Your task to perform on an android device: remove spam from my inbox in the gmail app Image 0: 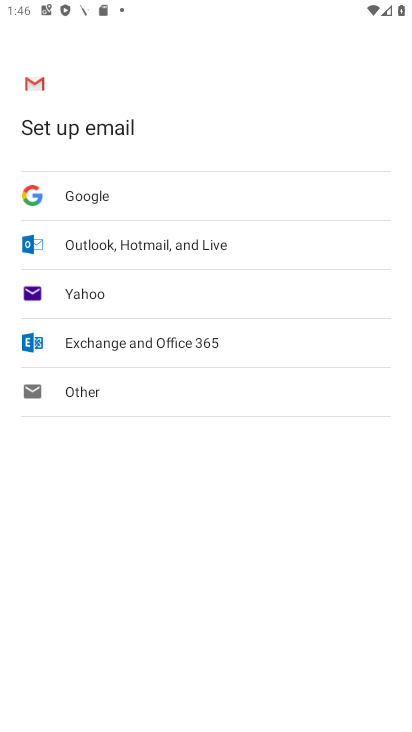
Step 0: press home button
Your task to perform on an android device: remove spam from my inbox in the gmail app Image 1: 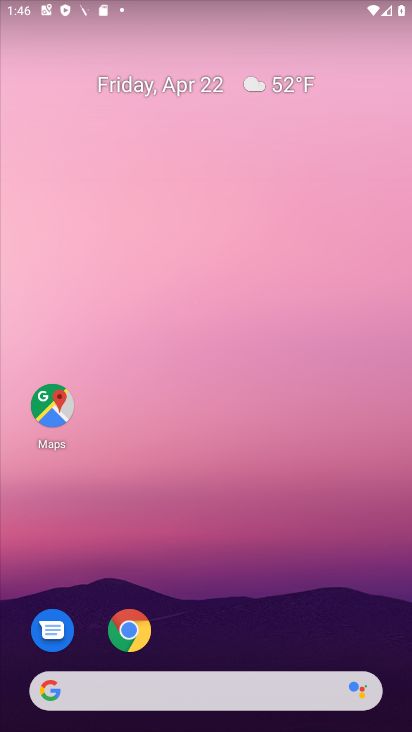
Step 1: drag from (330, 385) to (296, 139)
Your task to perform on an android device: remove spam from my inbox in the gmail app Image 2: 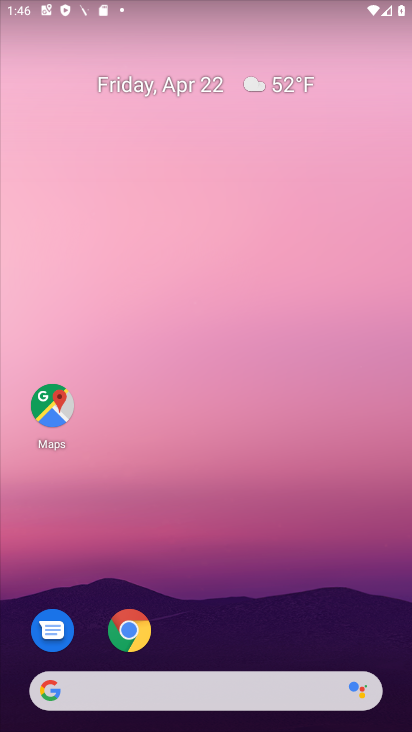
Step 2: drag from (383, 327) to (380, 168)
Your task to perform on an android device: remove spam from my inbox in the gmail app Image 3: 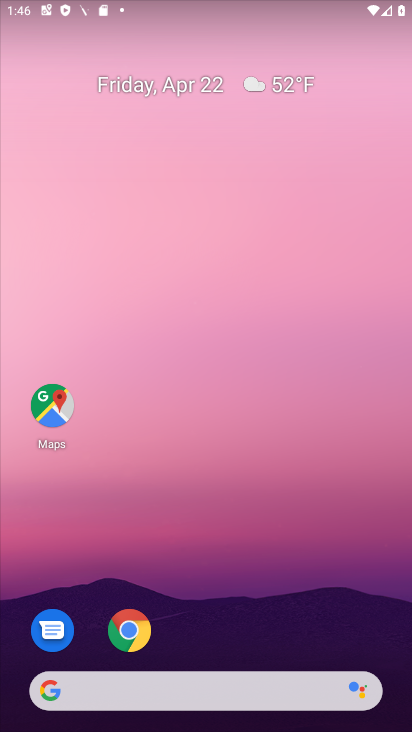
Step 3: drag from (340, 61) to (329, 1)
Your task to perform on an android device: remove spam from my inbox in the gmail app Image 4: 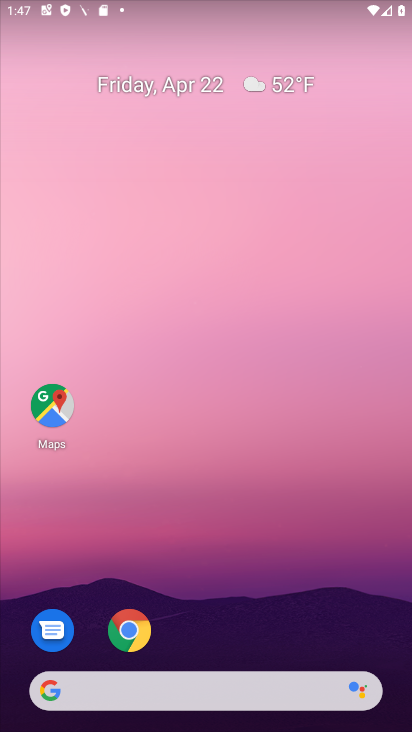
Step 4: drag from (410, 334) to (391, 167)
Your task to perform on an android device: remove spam from my inbox in the gmail app Image 5: 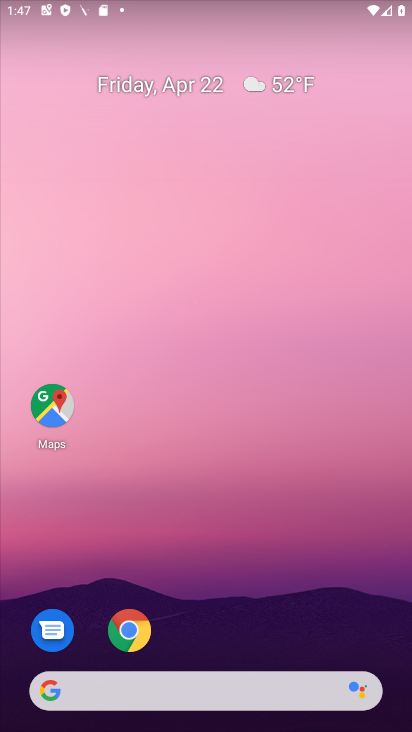
Step 5: drag from (363, 567) to (314, 273)
Your task to perform on an android device: remove spam from my inbox in the gmail app Image 6: 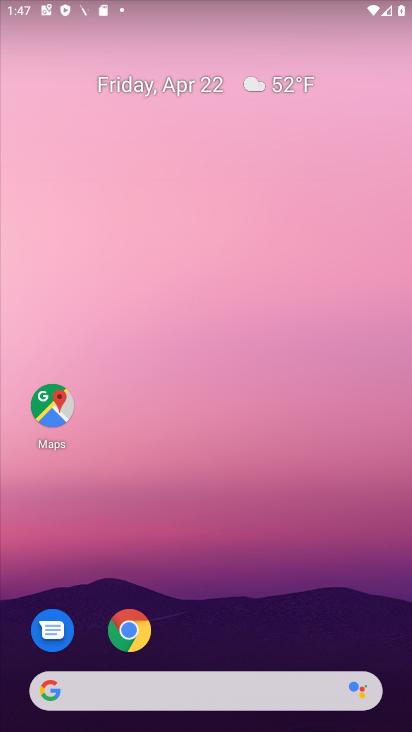
Step 6: click (288, 140)
Your task to perform on an android device: remove spam from my inbox in the gmail app Image 7: 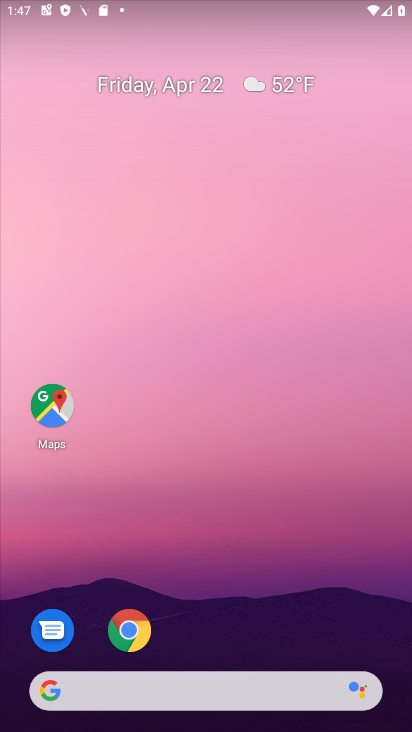
Step 7: click (317, 193)
Your task to perform on an android device: remove spam from my inbox in the gmail app Image 8: 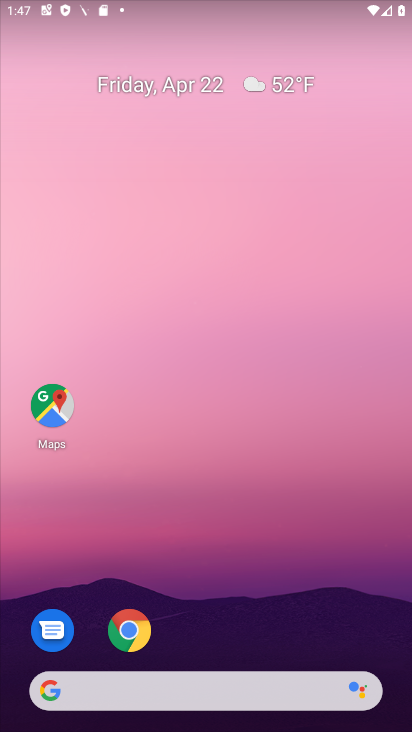
Step 8: drag from (390, 643) to (362, 9)
Your task to perform on an android device: remove spam from my inbox in the gmail app Image 9: 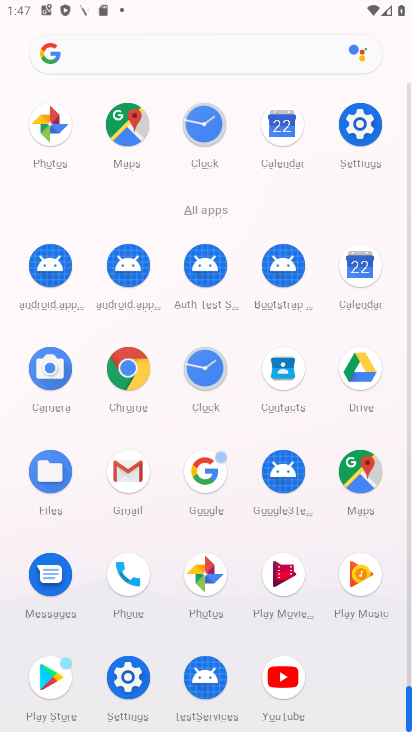
Step 9: click (119, 477)
Your task to perform on an android device: remove spam from my inbox in the gmail app Image 10: 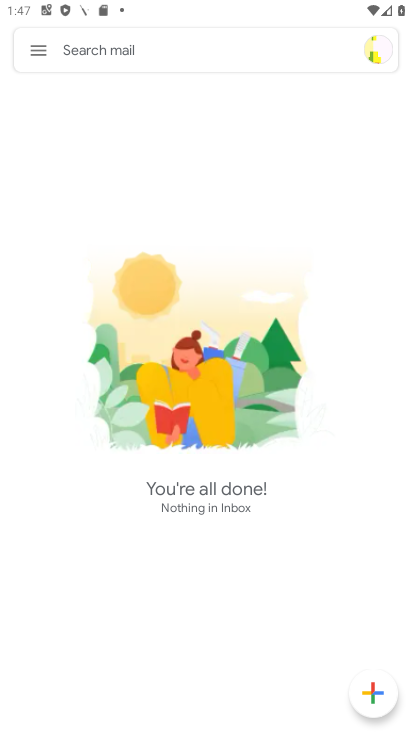
Step 10: click (36, 48)
Your task to perform on an android device: remove spam from my inbox in the gmail app Image 11: 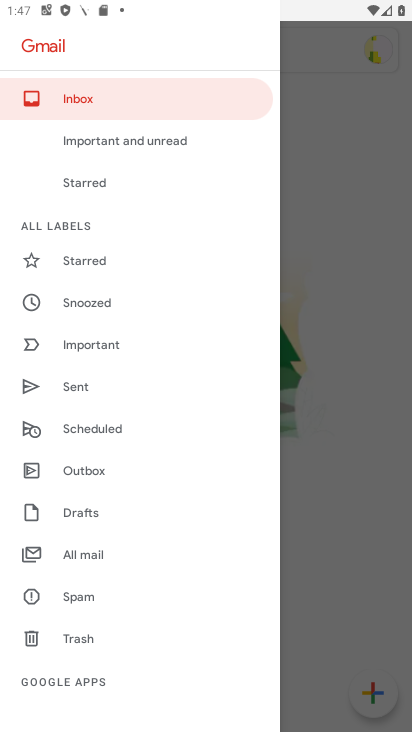
Step 11: click (75, 595)
Your task to perform on an android device: remove spam from my inbox in the gmail app Image 12: 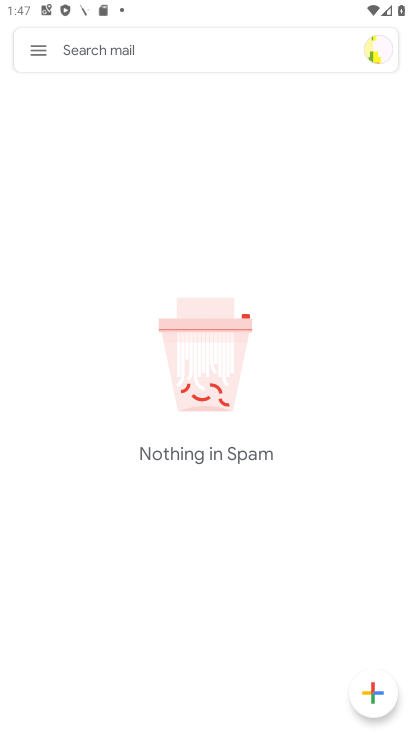
Step 12: task complete